Your task to perform on an android device: delete browsing data in the chrome app Image 0: 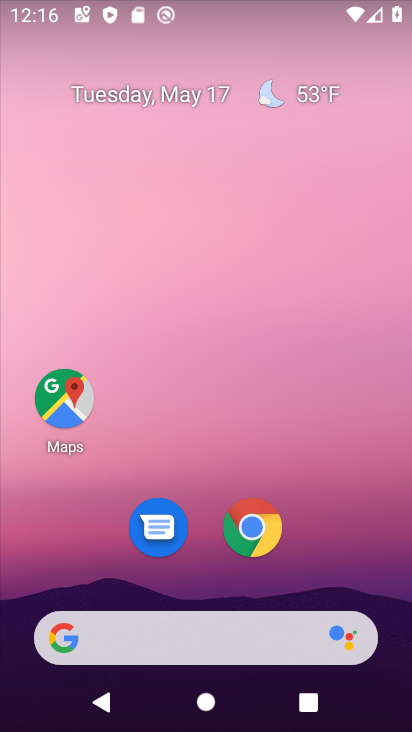
Step 0: drag from (367, 536) to (318, 138)
Your task to perform on an android device: delete browsing data in the chrome app Image 1: 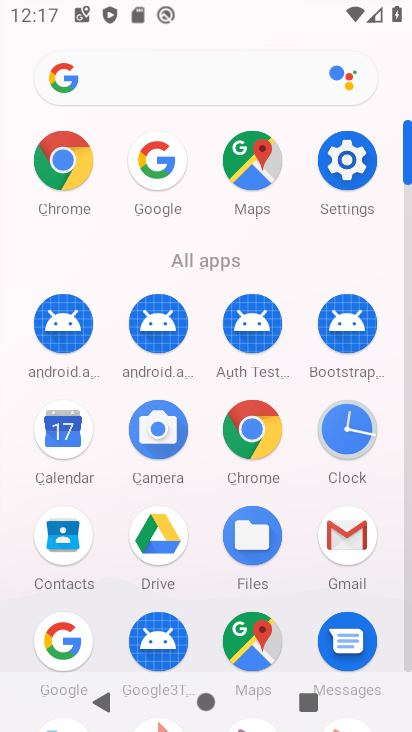
Step 1: click (369, 186)
Your task to perform on an android device: delete browsing data in the chrome app Image 2: 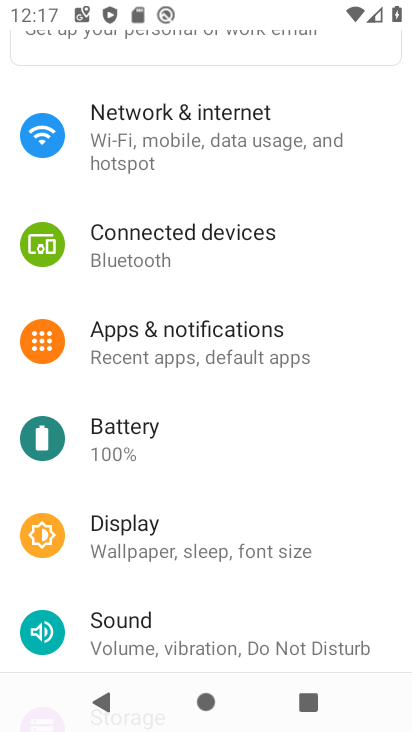
Step 2: press home button
Your task to perform on an android device: delete browsing data in the chrome app Image 3: 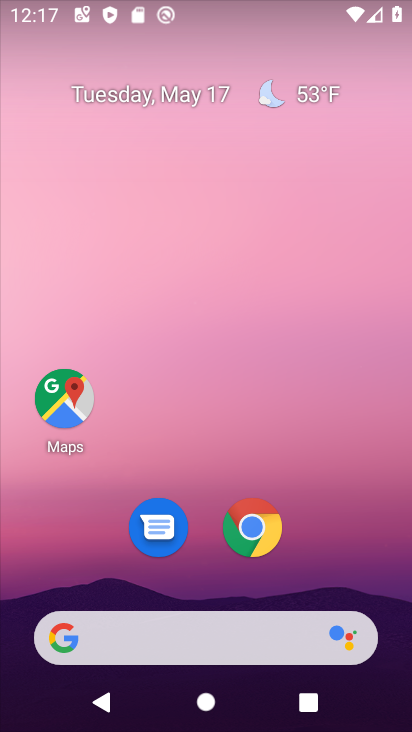
Step 3: drag from (350, 534) to (313, 206)
Your task to perform on an android device: delete browsing data in the chrome app Image 4: 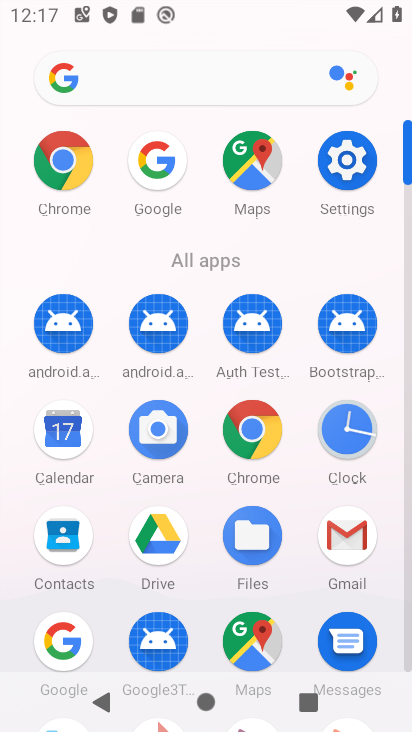
Step 4: click (235, 430)
Your task to perform on an android device: delete browsing data in the chrome app Image 5: 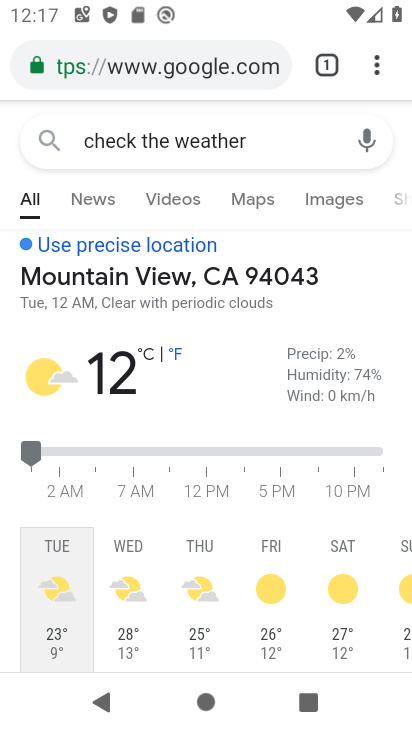
Step 5: drag from (375, 73) to (177, 206)
Your task to perform on an android device: delete browsing data in the chrome app Image 6: 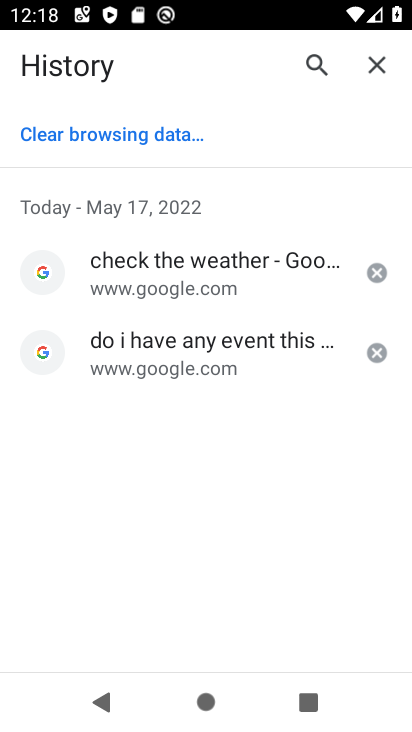
Step 6: click (62, 127)
Your task to perform on an android device: delete browsing data in the chrome app Image 7: 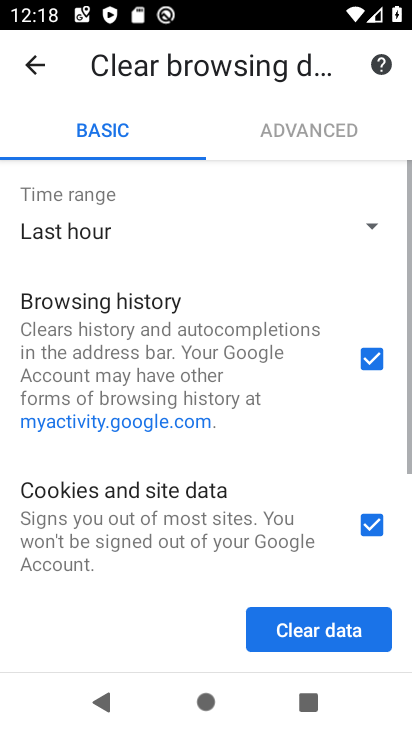
Step 7: click (283, 628)
Your task to perform on an android device: delete browsing data in the chrome app Image 8: 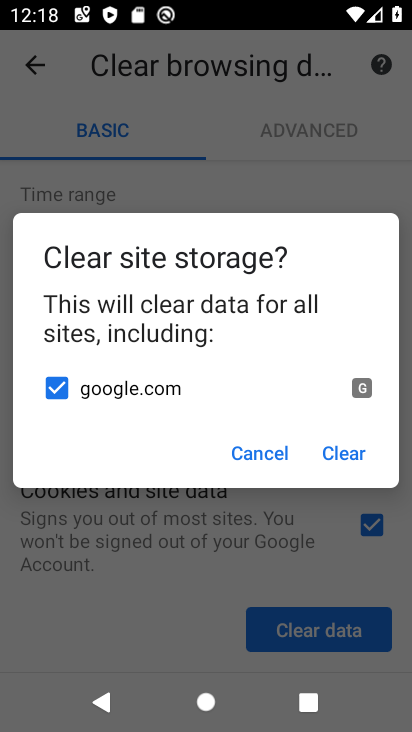
Step 8: click (346, 454)
Your task to perform on an android device: delete browsing data in the chrome app Image 9: 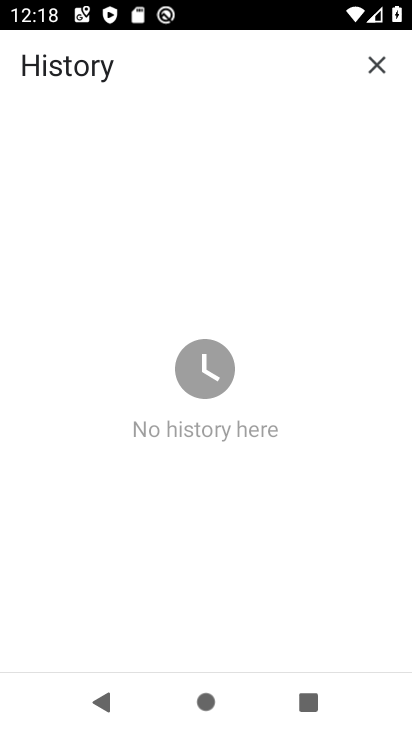
Step 9: task complete